Your task to perform on an android device: Open calendar and show me the fourth week of next month Image 0: 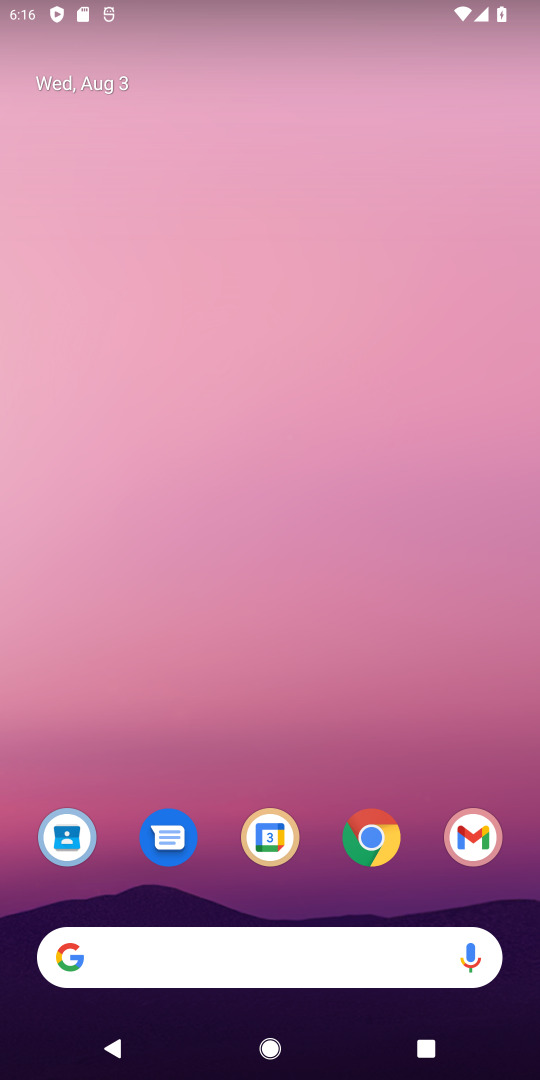
Step 0: press home button
Your task to perform on an android device: Open calendar and show me the fourth week of next month Image 1: 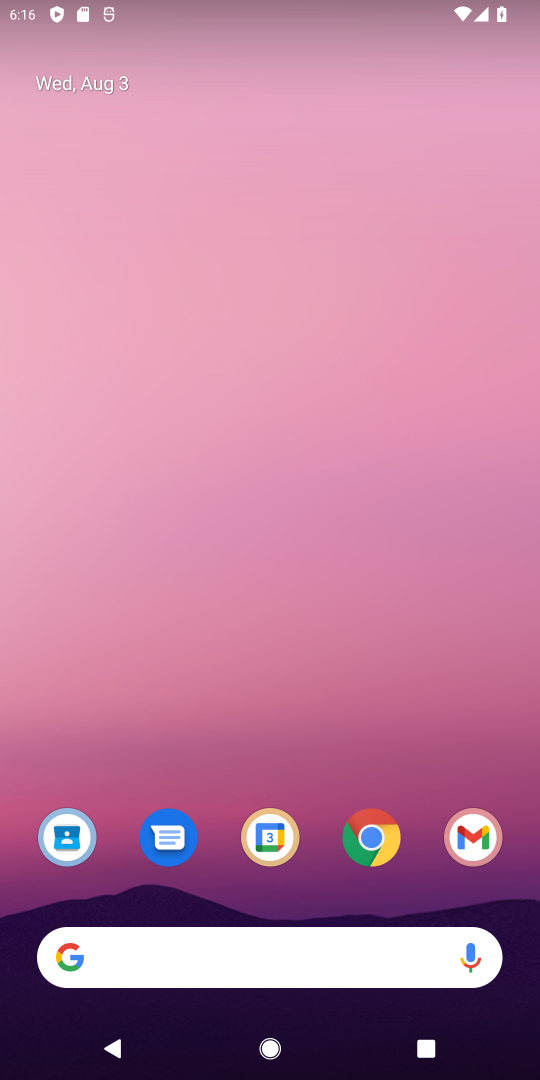
Step 1: drag from (378, 770) to (299, 111)
Your task to perform on an android device: Open calendar and show me the fourth week of next month Image 2: 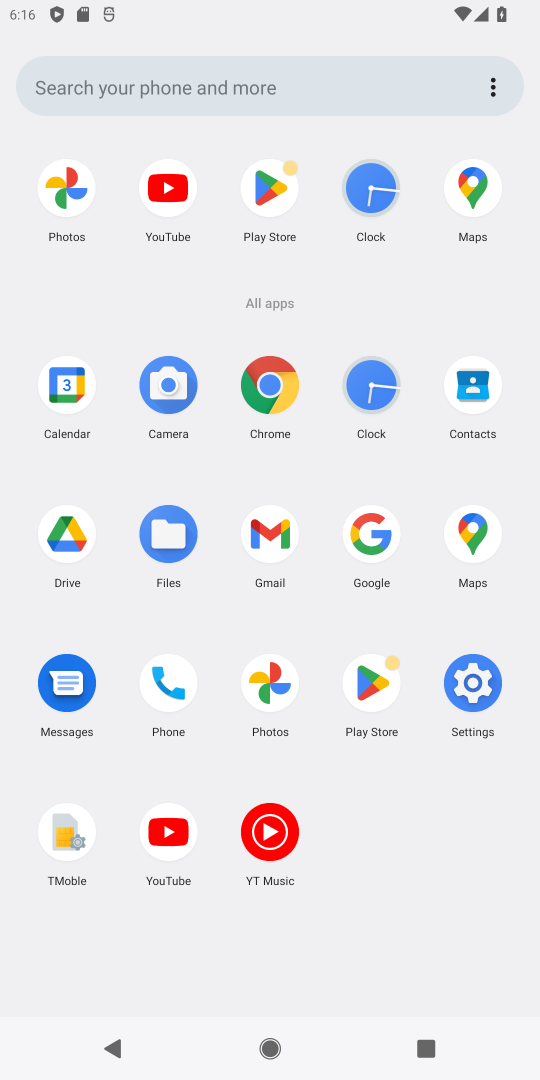
Step 2: click (65, 388)
Your task to perform on an android device: Open calendar and show me the fourth week of next month Image 3: 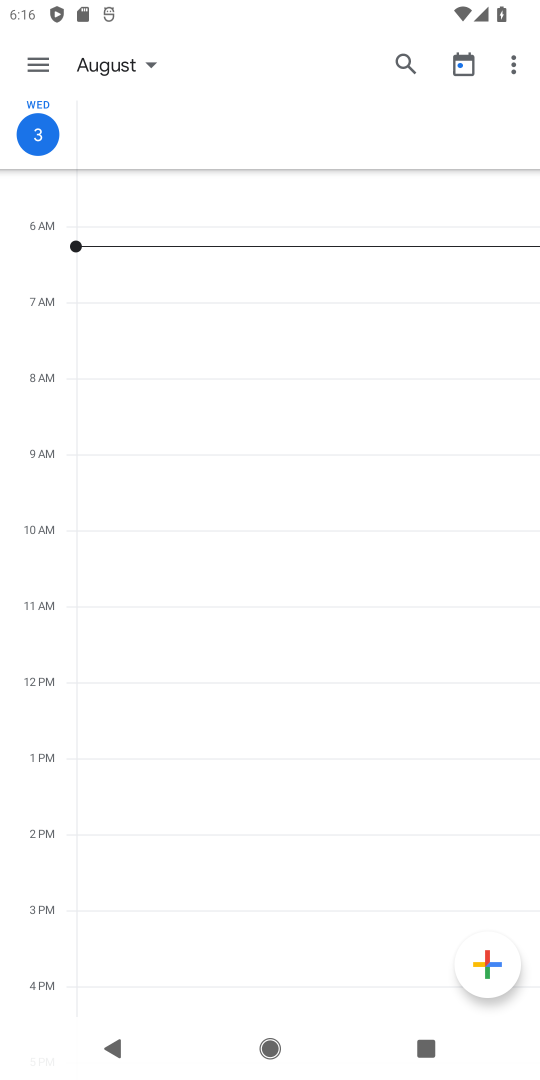
Step 3: click (27, 57)
Your task to perform on an android device: Open calendar and show me the fourth week of next month Image 4: 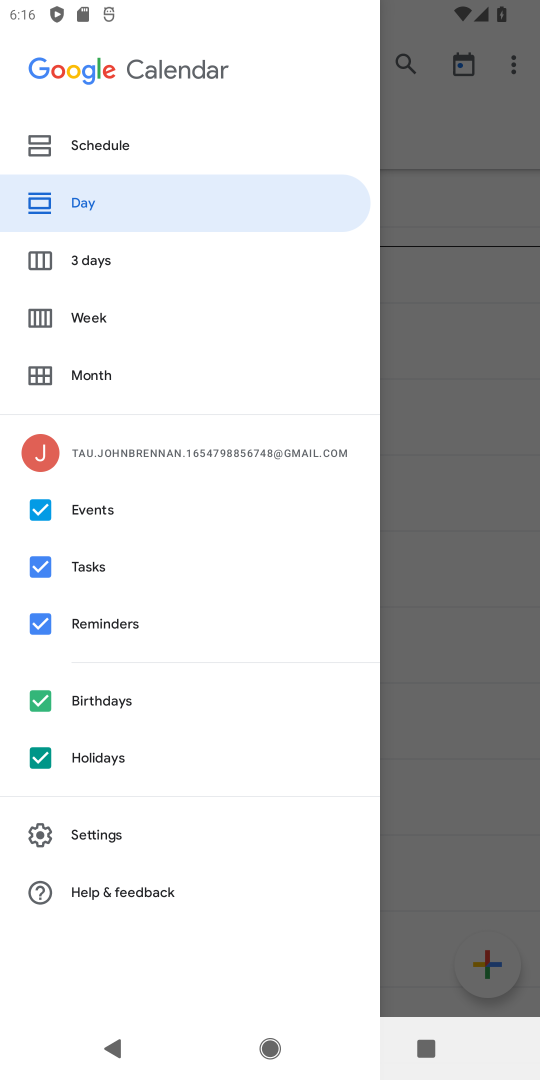
Step 4: click (95, 366)
Your task to perform on an android device: Open calendar and show me the fourth week of next month Image 5: 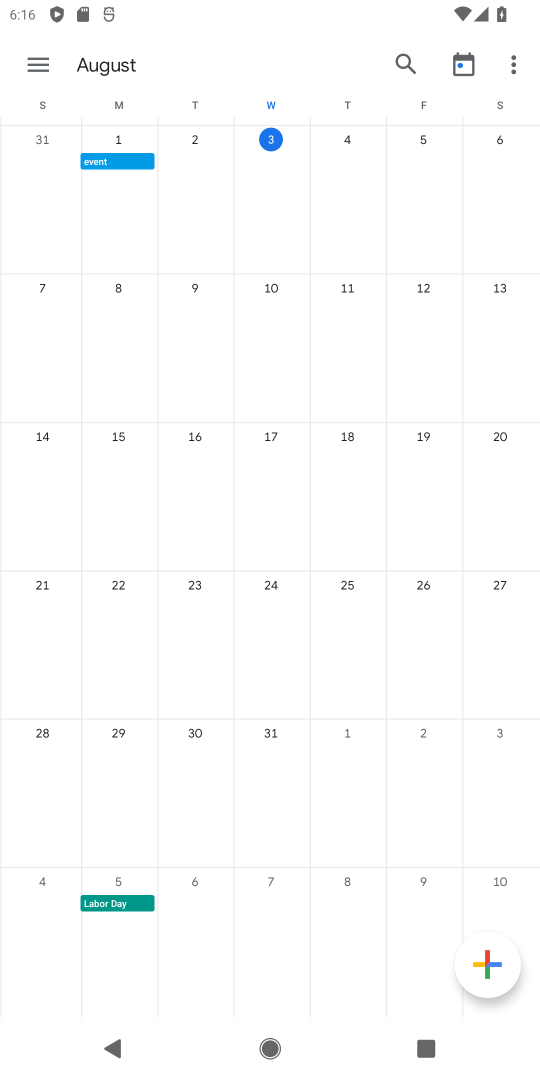
Step 5: task complete